Your task to perform on an android device: turn off sleep mode Image 0: 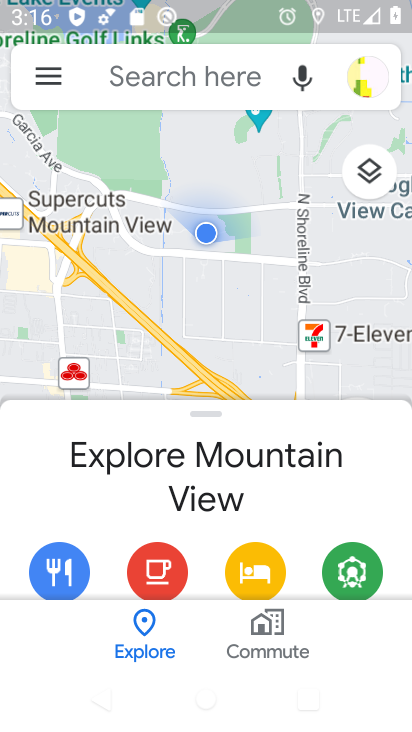
Step 0: press home button
Your task to perform on an android device: turn off sleep mode Image 1: 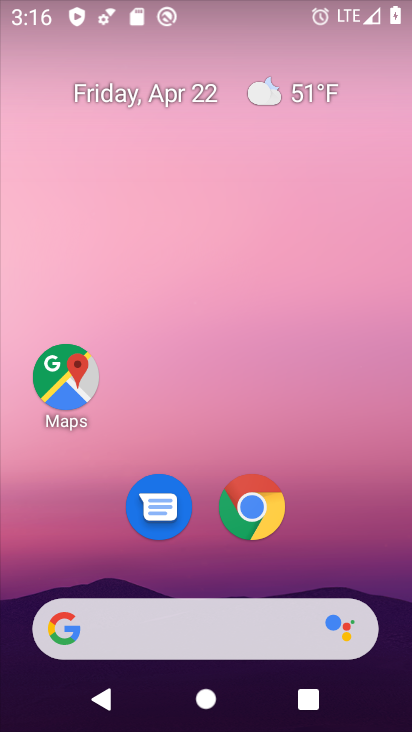
Step 1: drag from (208, 589) to (383, 25)
Your task to perform on an android device: turn off sleep mode Image 2: 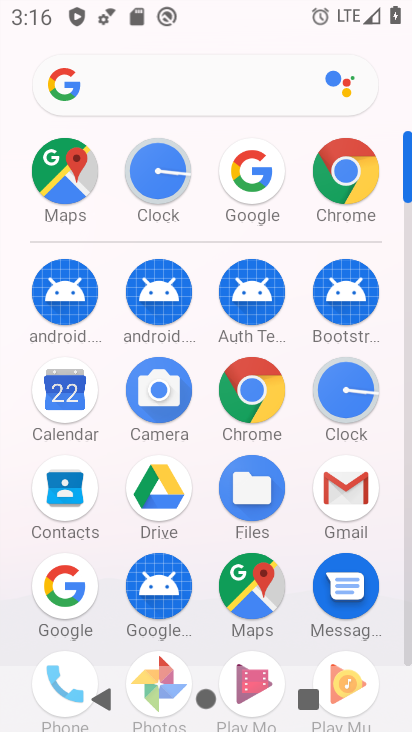
Step 2: drag from (203, 626) to (180, 98)
Your task to perform on an android device: turn off sleep mode Image 3: 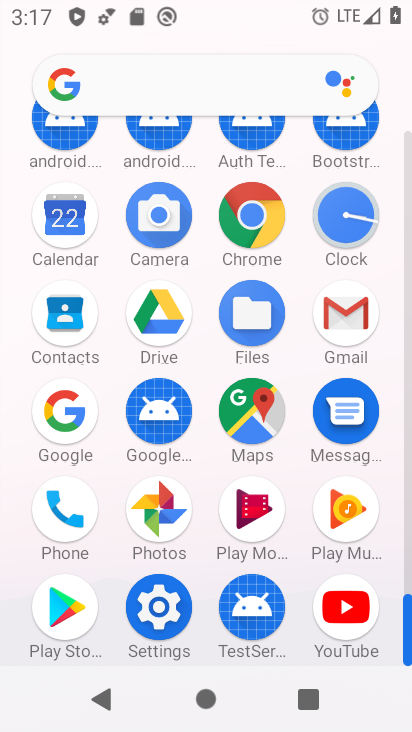
Step 3: click (150, 590)
Your task to perform on an android device: turn off sleep mode Image 4: 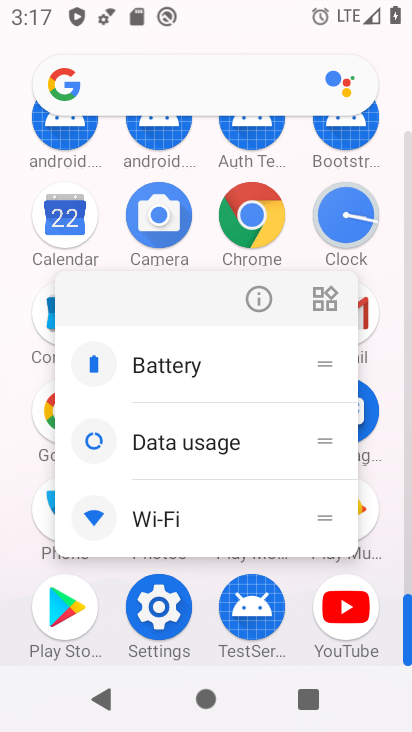
Step 4: click (159, 617)
Your task to perform on an android device: turn off sleep mode Image 5: 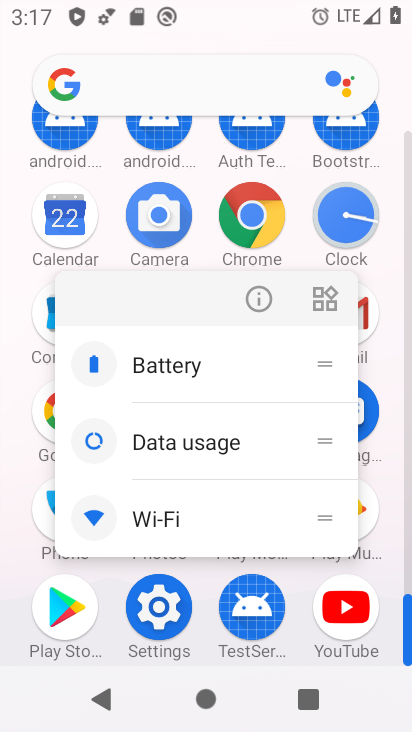
Step 5: click (171, 605)
Your task to perform on an android device: turn off sleep mode Image 6: 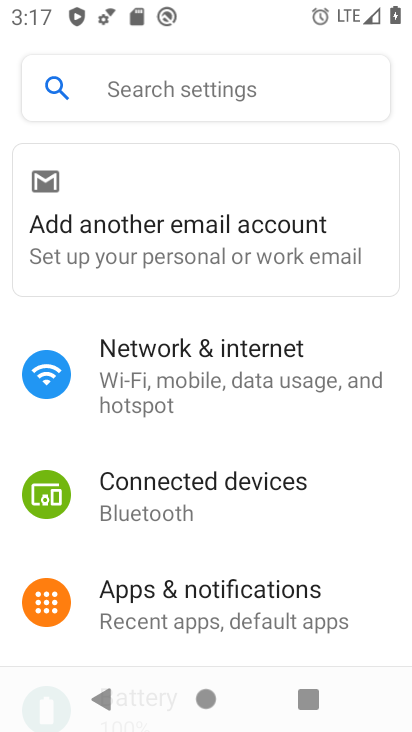
Step 6: task complete